Your task to perform on an android device: turn off data saver in the chrome app Image 0: 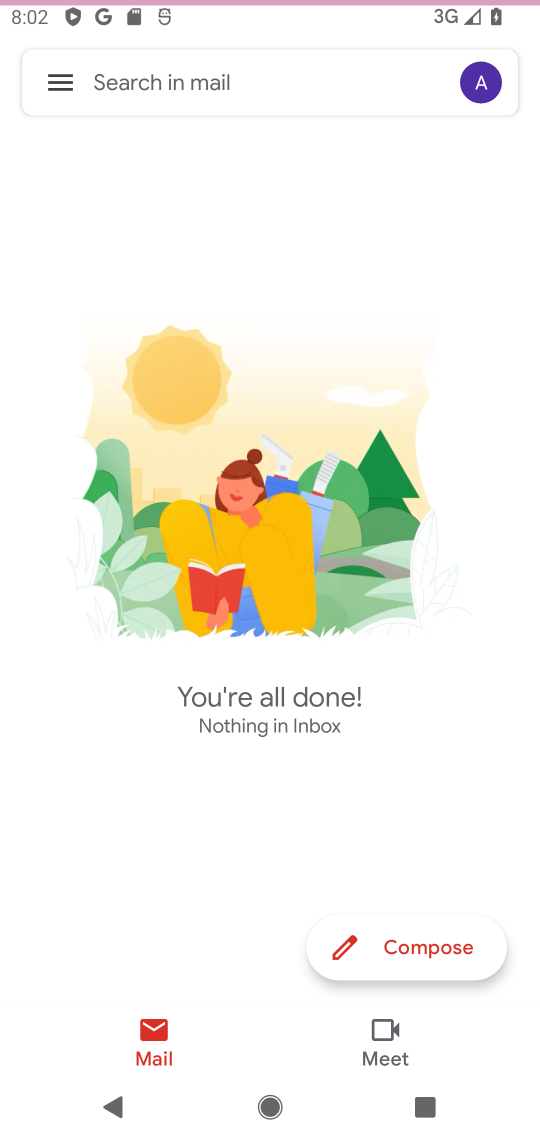
Step 0: press home button
Your task to perform on an android device: turn off data saver in the chrome app Image 1: 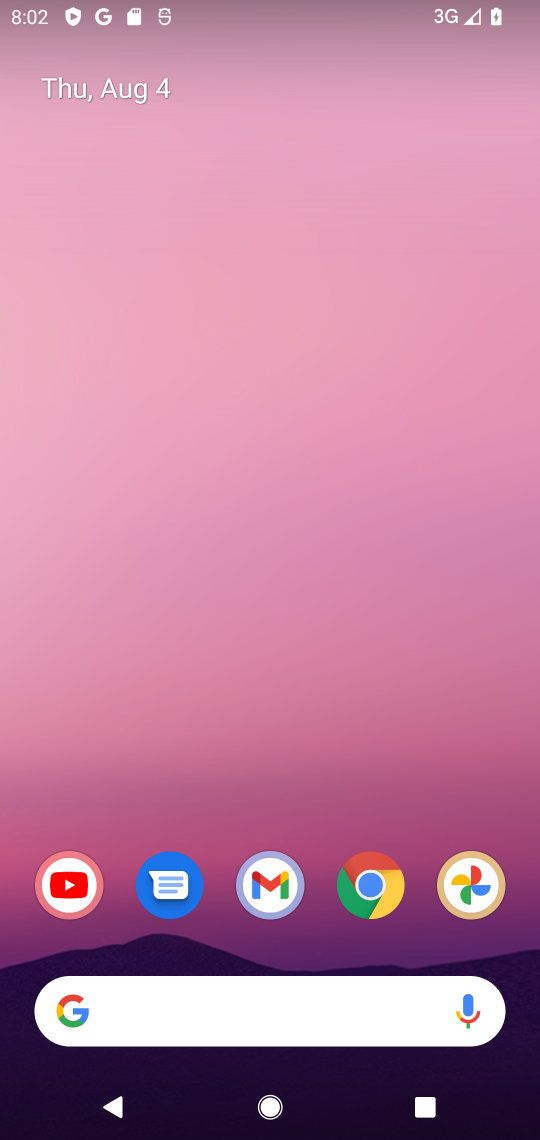
Step 1: click (366, 874)
Your task to perform on an android device: turn off data saver in the chrome app Image 2: 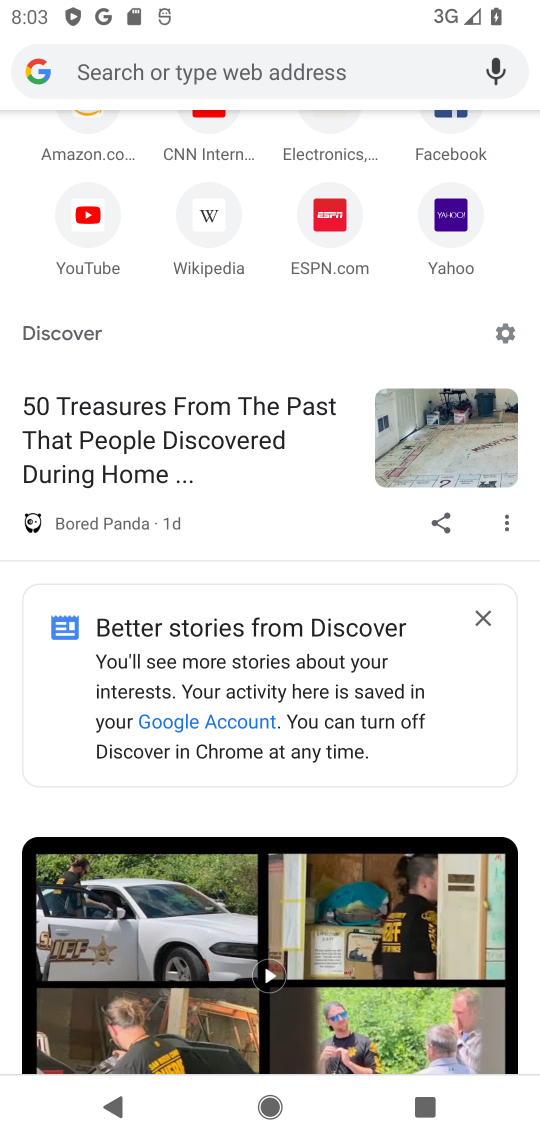
Step 2: drag from (363, 333) to (402, 895)
Your task to perform on an android device: turn off data saver in the chrome app Image 3: 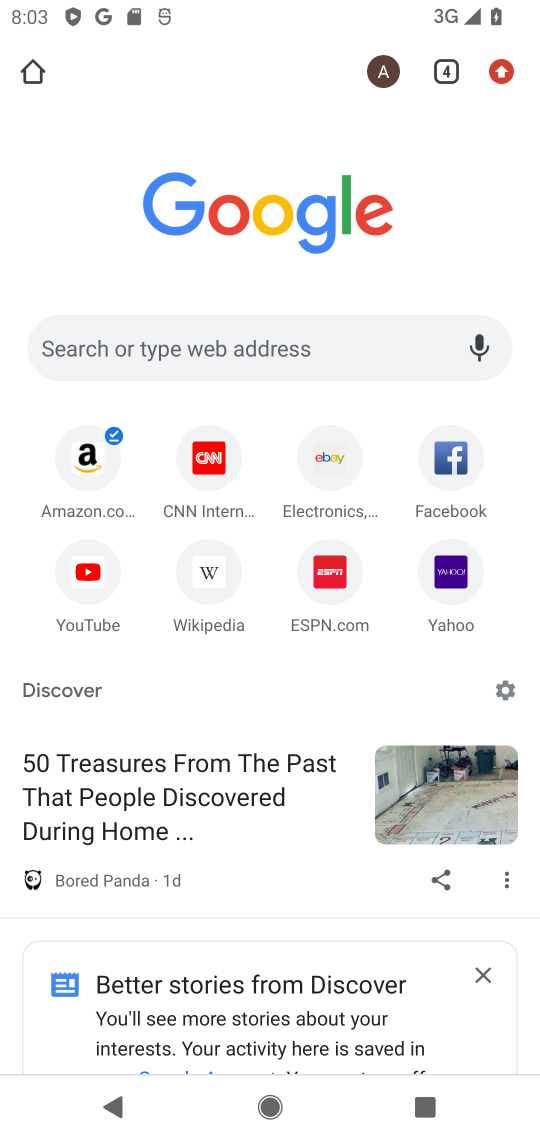
Step 3: click (502, 63)
Your task to perform on an android device: turn off data saver in the chrome app Image 4: 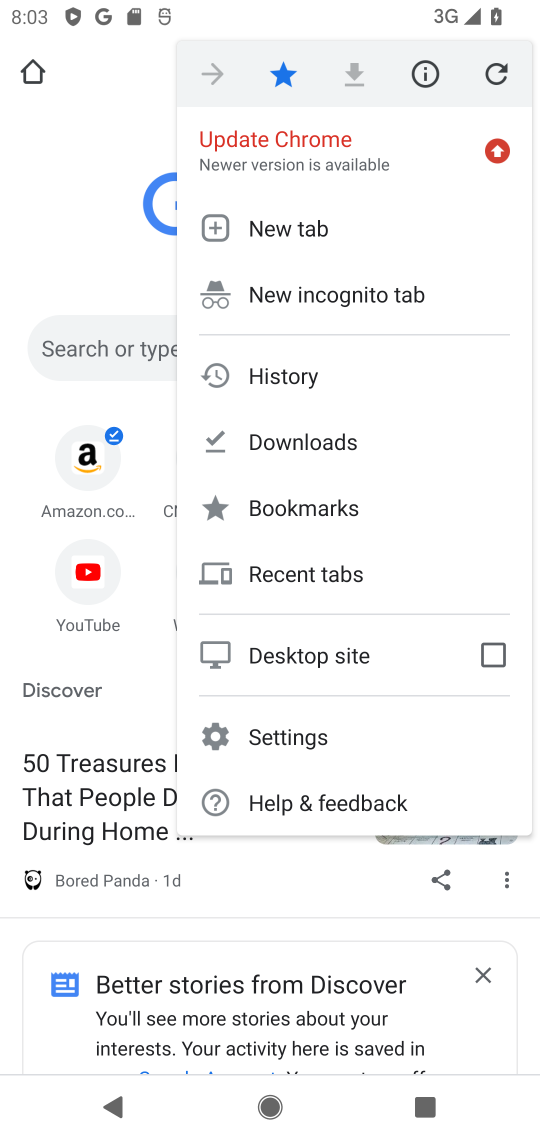
Step 4: click (335, 734)
Your task to perform on an android device: turn off data saver in the chrome app Image 5: 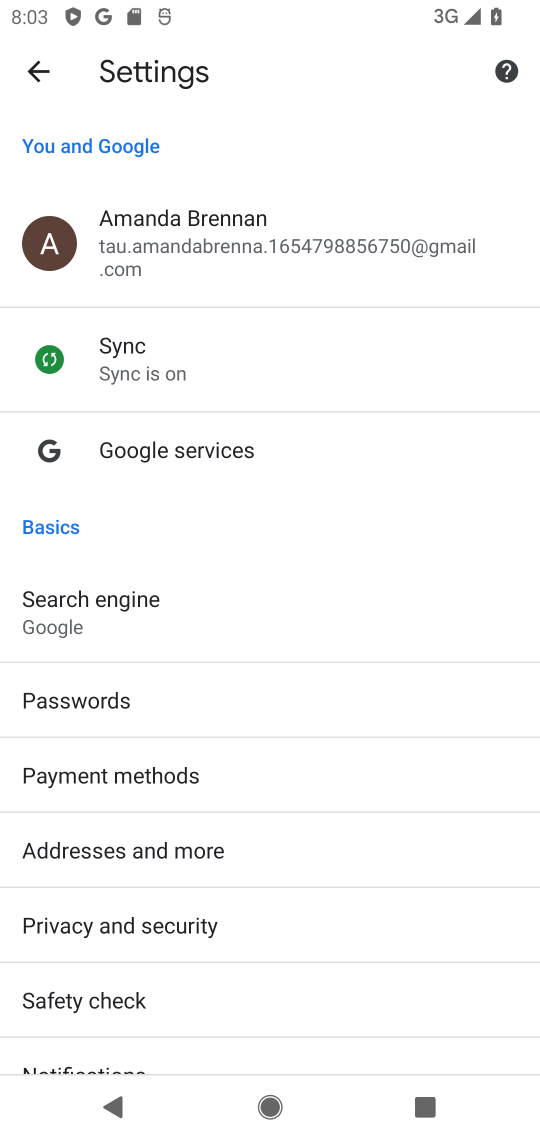
Step 5: drag from (230, 998) to (264, 306)
Your task to perform on an android device: turn off data saver in the chrome app Image 6: 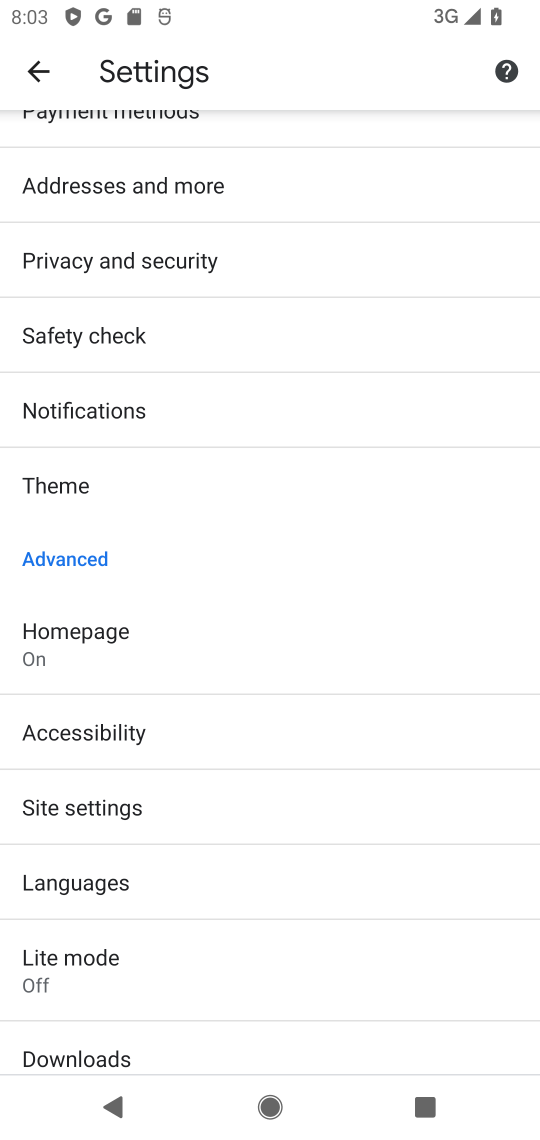
Step 6: click (134, 975)
Your task to perform on an android device: turn off data saver in the chrome app Image 7: 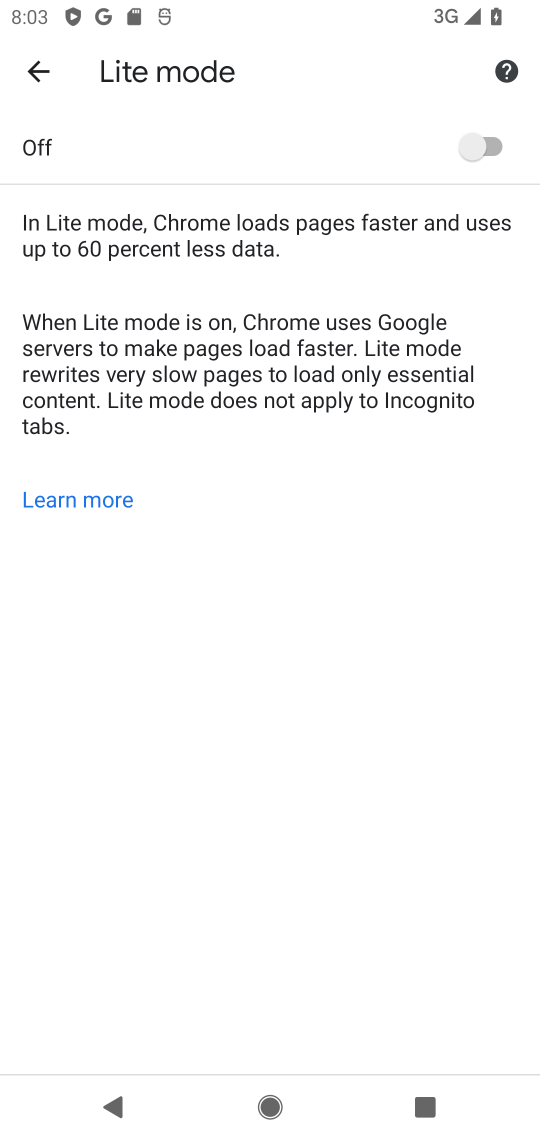
Step 7: task complete